Your task to perform on an android device: Go to eBay Image 0: 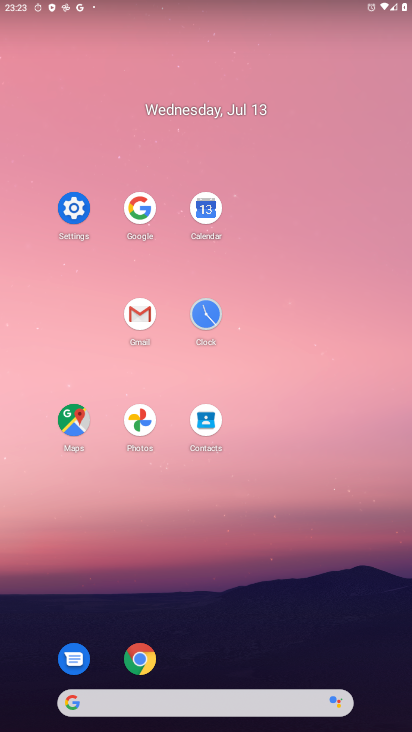
Step 0: click (146, 659)
Your task to perform on an android device: Go to eBay Image 1: 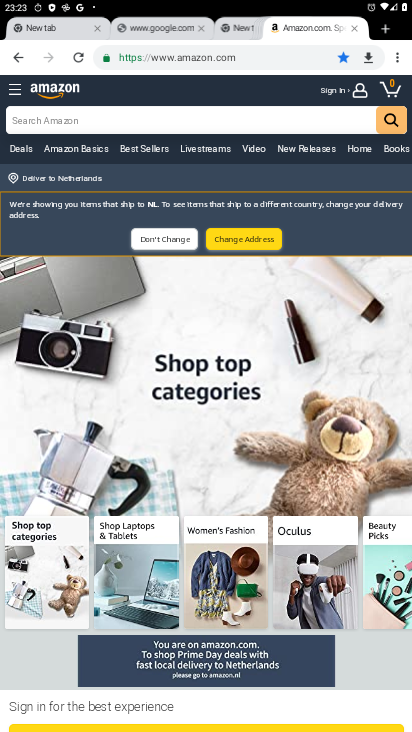
Step 1: click (389, 26)
Your task to perform on an android device: Go to eBay Image 2: 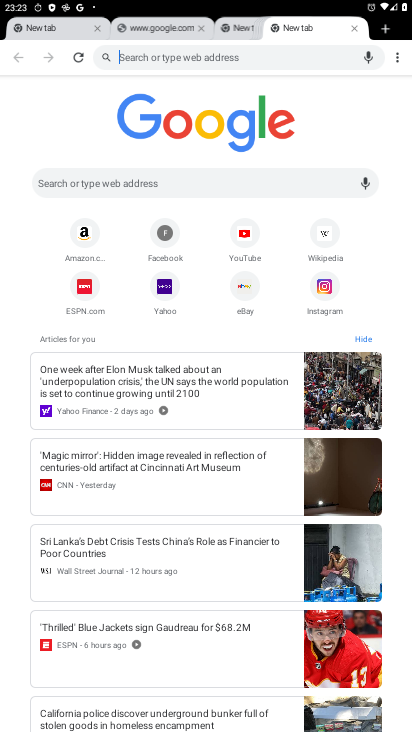
Step 2: click (244, 286)
Your task to perform on an android device: Go to eBay Image 3: 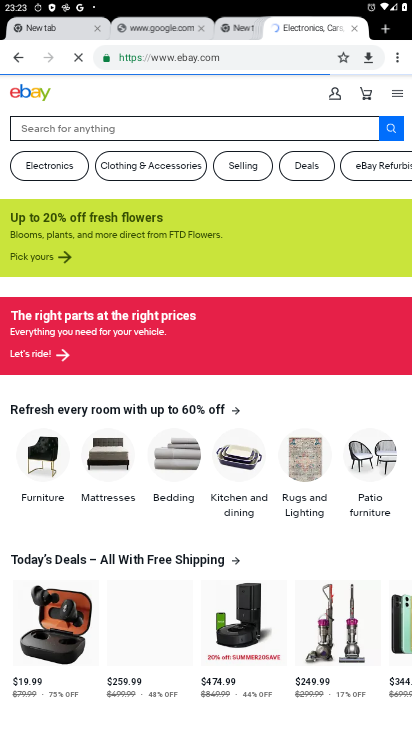
Step 3: task complete